Your task to perform on an android device: toggle location history Image 0: 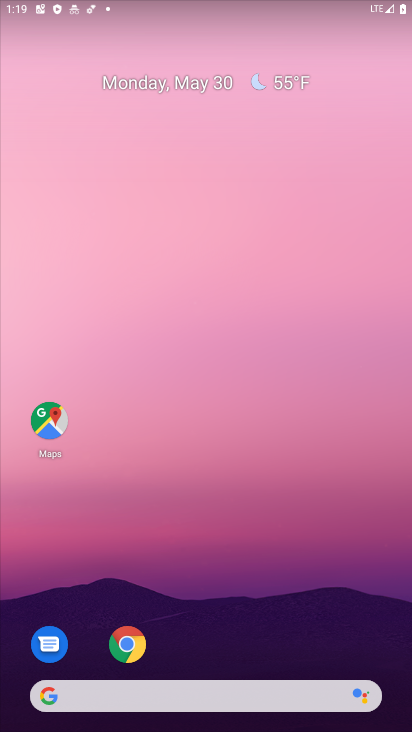
Step 0: drag from (304, 627) to (180, 67)
Your task to perform on an android device: toggle location history Image 1: 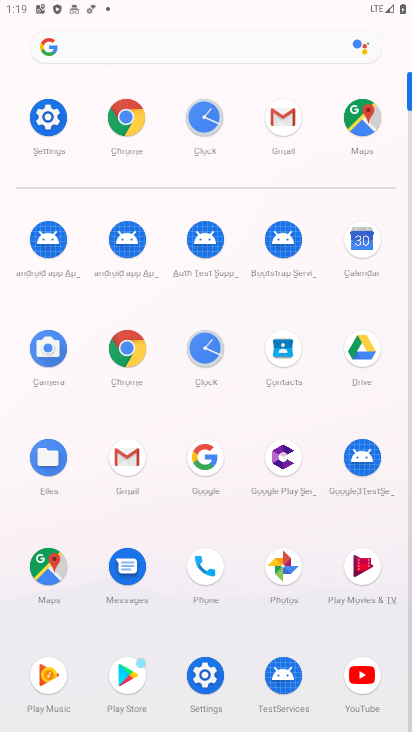
Step 1: click (50, 113)
Your task to perform on an android device: toggle location history Image 2: 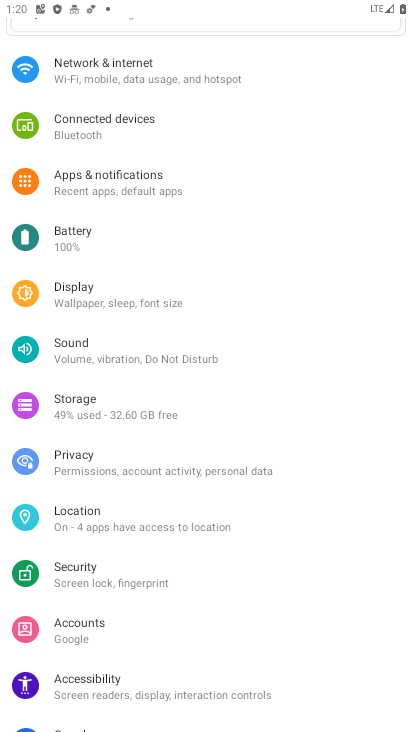
Step 2: click (225, 526)
Your task to perform on an android device: toggle location history Image 3: 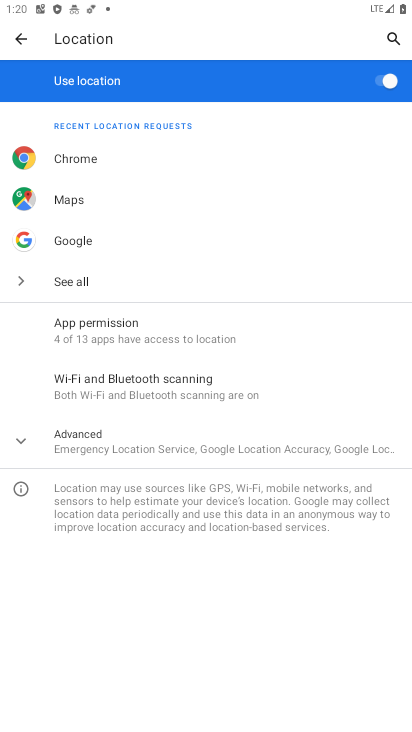
Step 3: task complete